Your task to perform on an android device: open sync settings in chrome Image 0: 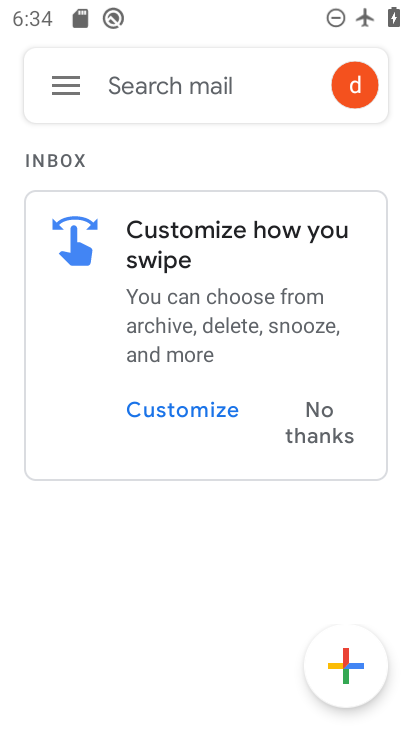
Step 0: press home button
Your task to perform on an android device: open sync settings in chrome Image 1: 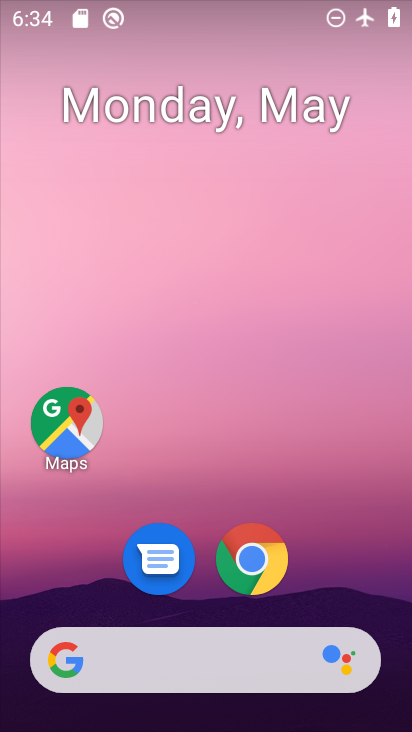
Step 1: click (255, 569)
Your task to perform on an android device: open sync settings in chrome Image 2: 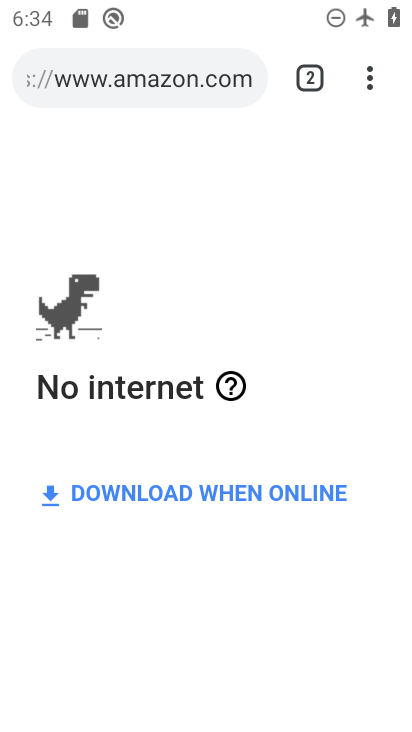
Step 2: click (355, 89)
Your task to perform on an android device: open sync settings in chrome Image 3: 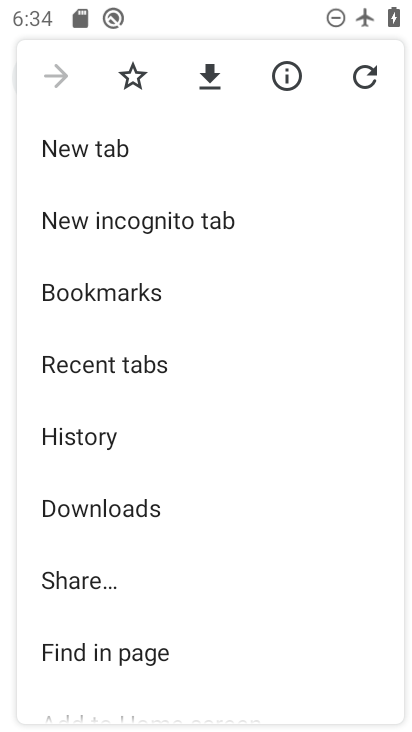
Step 3: drag from (267, 544) to (214, 26)
Your task to perform on an android device: open sync settings in chrome Image 4: 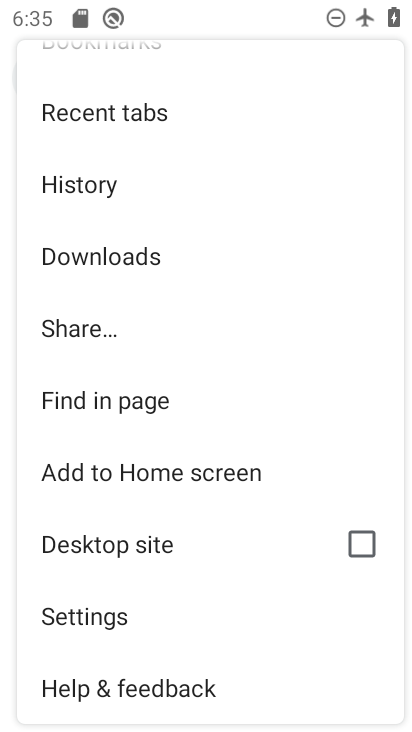
Step 4: click (112, 622)
Your task to perform on an android device: open sync settings in chrome Image 5: 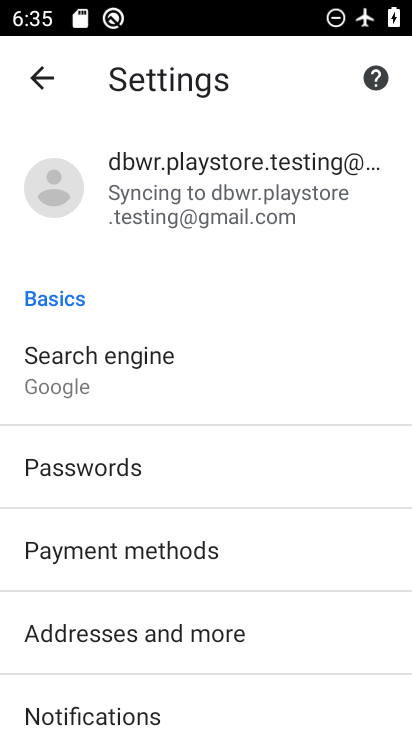
Step 5: click (159, 170)
Your task to perform on an android device: open sync settings in chrome Image 6: 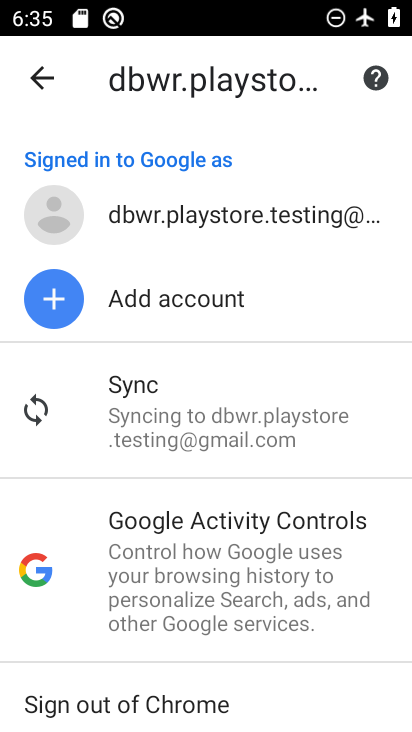
Step 6: click (114, 390)
Your task to perform on an android device: open sync settings in chrome Image 7: 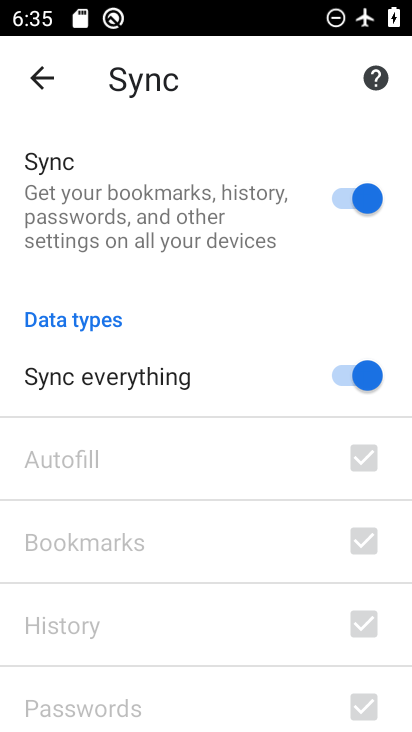
Step 7: task complete